Your task to perform on an android device: When is my next meeting? Image 0: 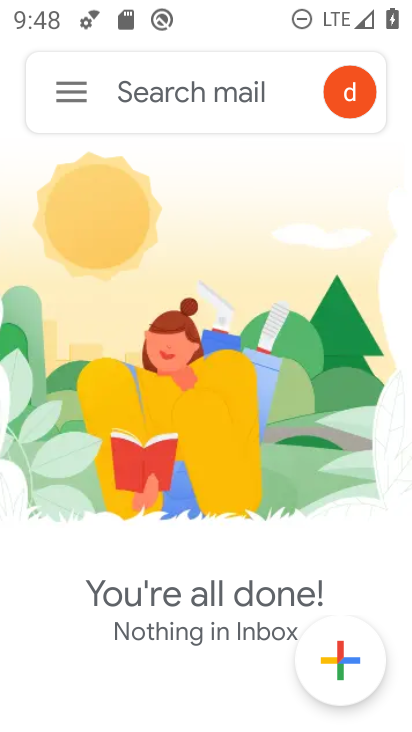
Step 0: press home button
Your task to perform on an android device: When is my next meeting? Image 1: 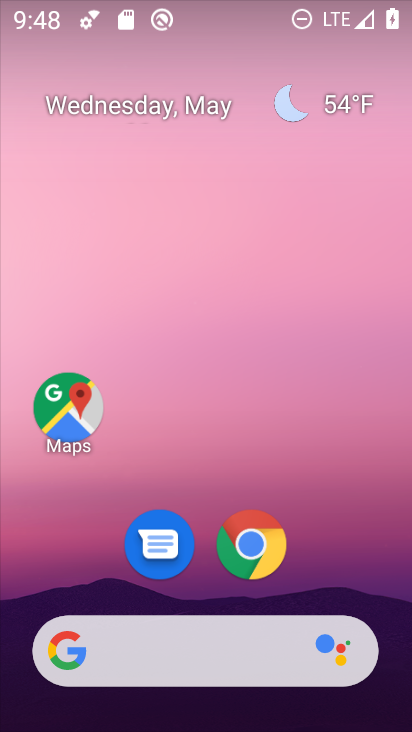
Step 1: click (193, 98)
Your task to perform on an android device: When is my next meeting? Image 2: 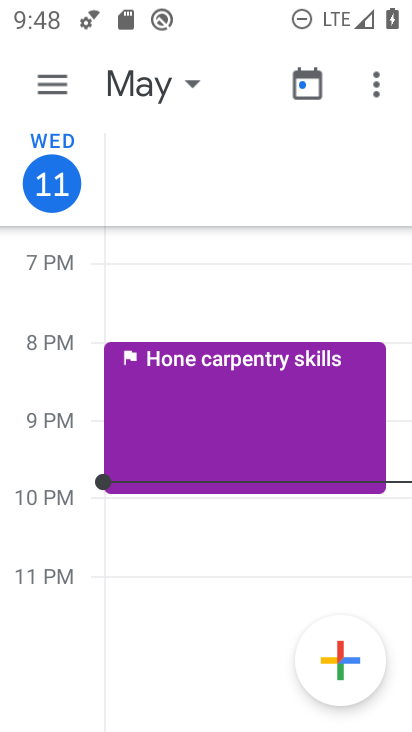
Step 2: click (34, 91)
Your task to perform on an android device: When is my next meeting? Image 3: 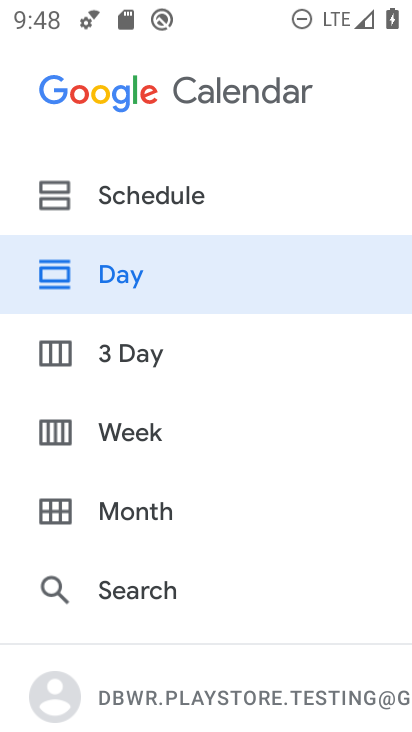
Step 3: task complete